Your task to perform on an android device: Go to calendar. Show me events next week Image 0: 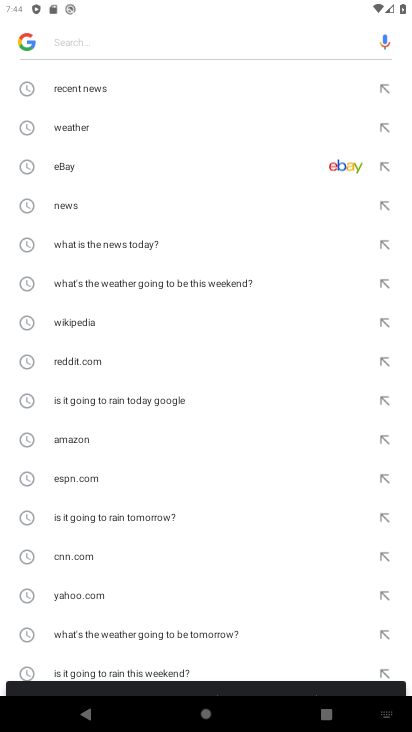
Step 0: press home button
Your task to perform on an android device: Go to calendar. Show me events next week Image 1: 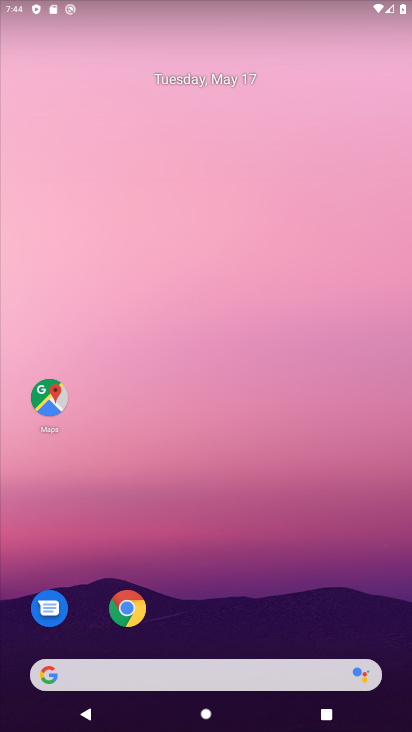
Step 1: drag from (354, 623) to (307, 127)
Your task to perform on an android device: Go to calendar. Show me events next week Image 2: 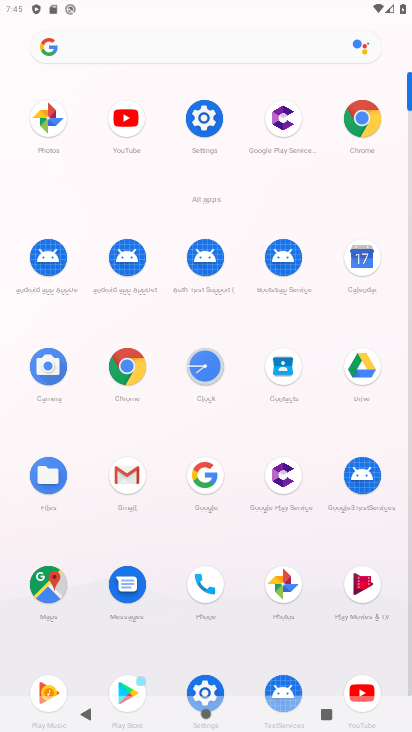
Step 2: click (365, 255)
Your task to perform on an android device: Go to calendar. Show me events next week Image 3: 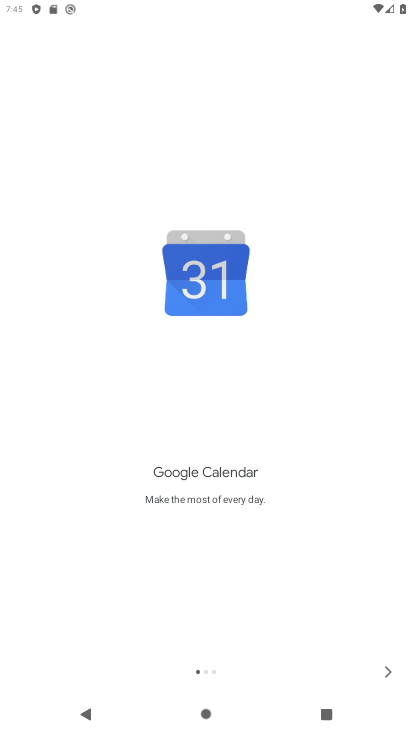
Step 3: click (394, 666)
Your task to perform on an android device: Go to calendar. Show me events next week Image 4: 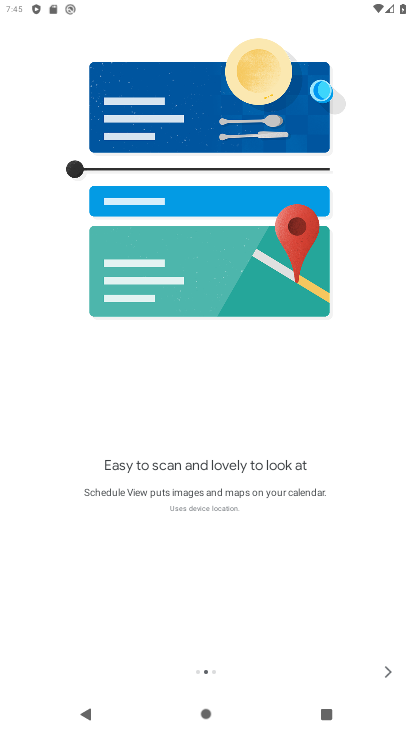
Step 4: click (389, 671)
Your task to perform on an android device: Go to calendar. Show me events next week Image 5: 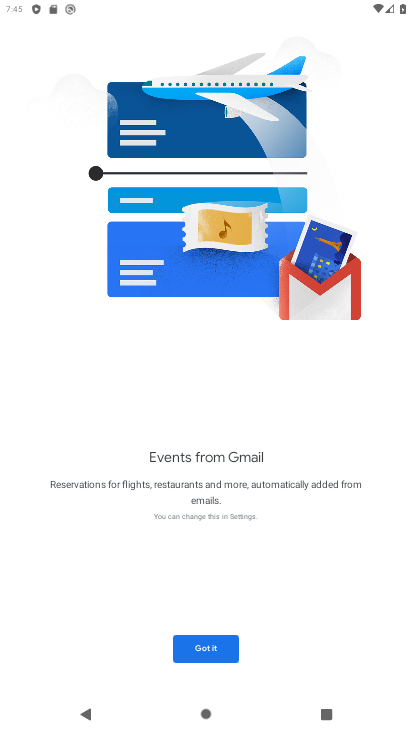
Step 5: click (217, 653)
Your task to perform on an android device: Go to calendar. Show me events next week Image 6: 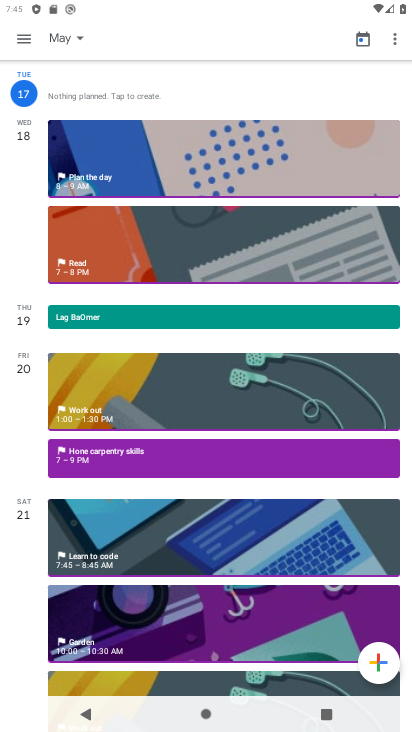
Step 6: click (59, 36)
Your task to perform on an android device: Go to calendar. Show me events next week Image 7: 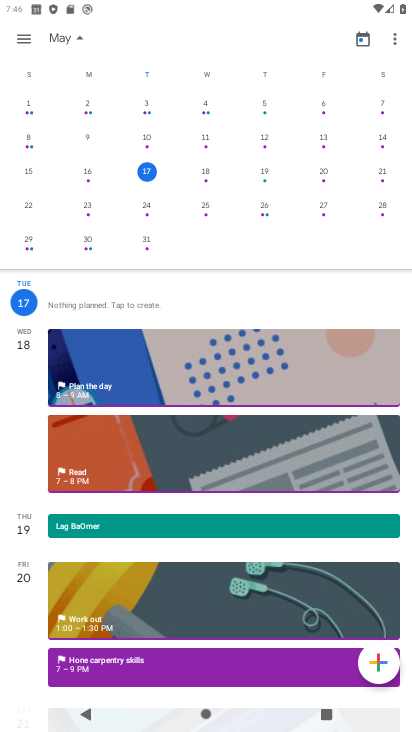
Step 7: click (25, 211)
Your task to perform on an android device: Go to calendar. Show me events next week Image 8: 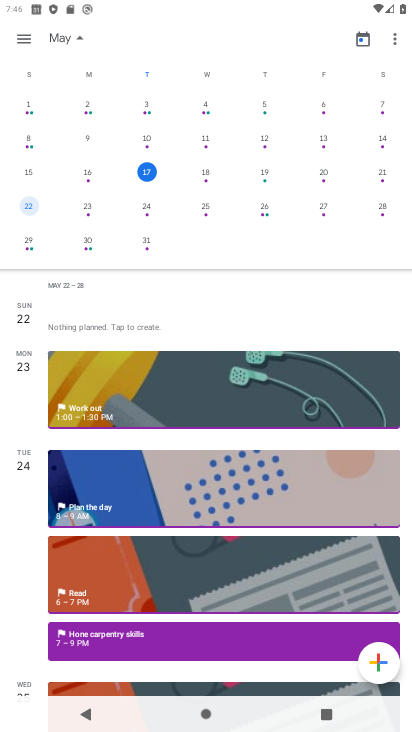
Step 8: task complete